Your task to perform on an android device: turn on data saver in the chrome app Image 0: 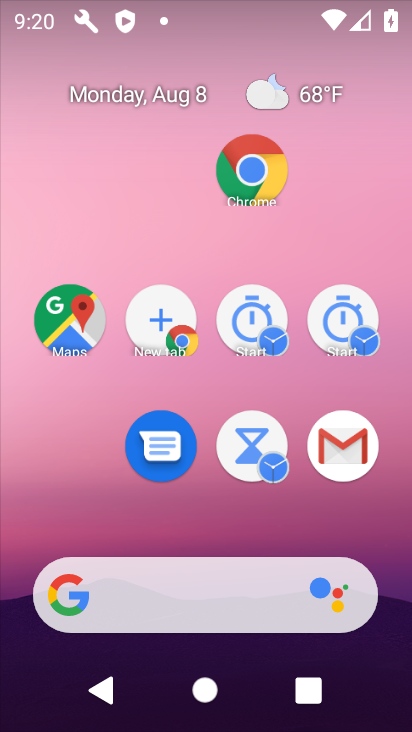
Step 0: drag from (259, 588) to (204, 234)
Your task to perform on an android device: turn on data saver in the chrome app Image 1: 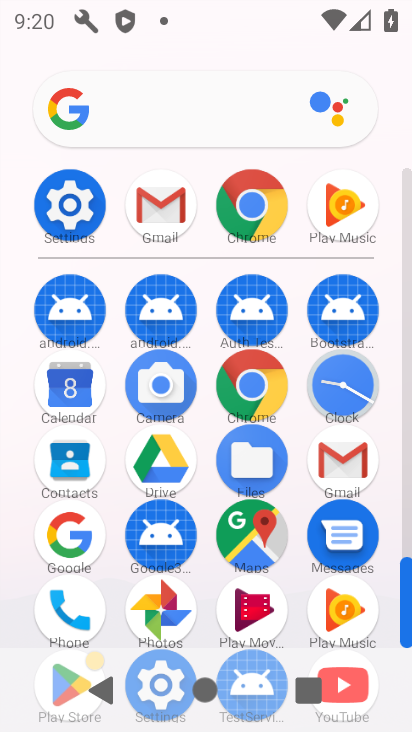
Step 1: click (242, 199)
Your task to perform on an android device: turn on data saver in the chrome app Image 2: 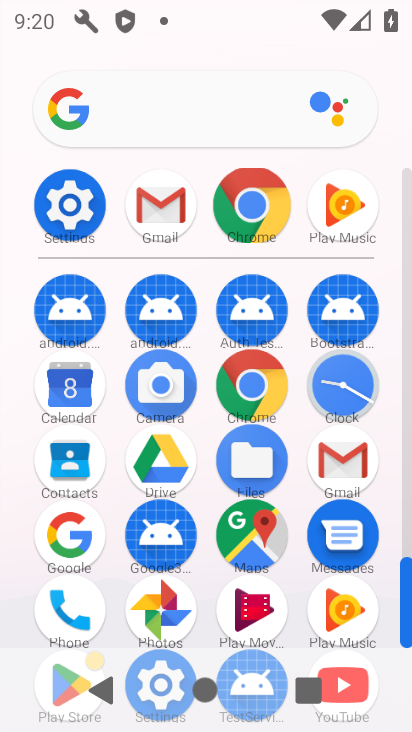
Step 2: click (244, 201)
Your task to perform on an android device: turn on data saver in the chrome app Image 3: 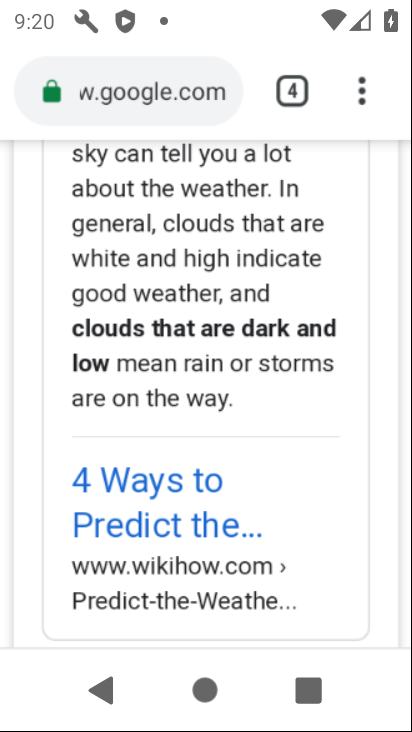
Step 3: click (248, 213)
Your task to perform on an android device: turn on data saver in the chrome app Image 4: 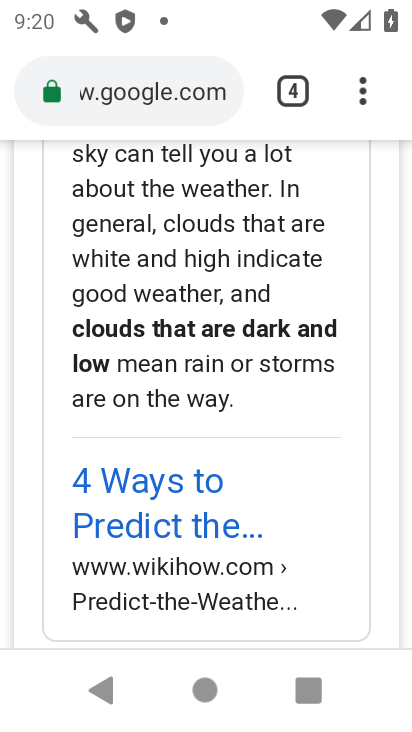
Step 4: drag from (253, 582) to (212, 160)
Your task to perform on an android device: turn on data saver in the chrome app Image 5: 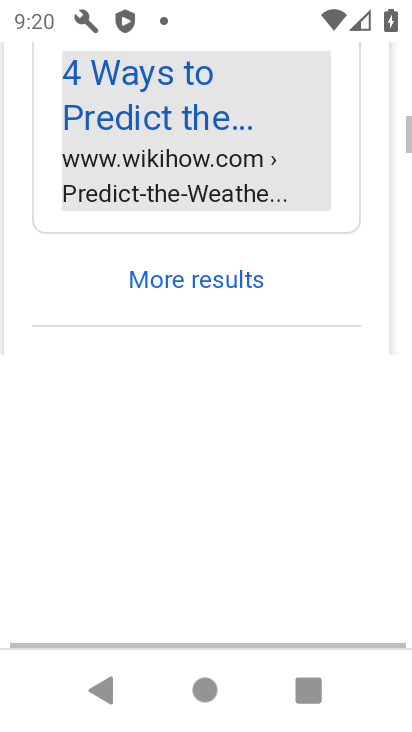
Step 5: click (220, 65)
Your task to perform on an android device: turn on data saver in the chrome app Image 6: 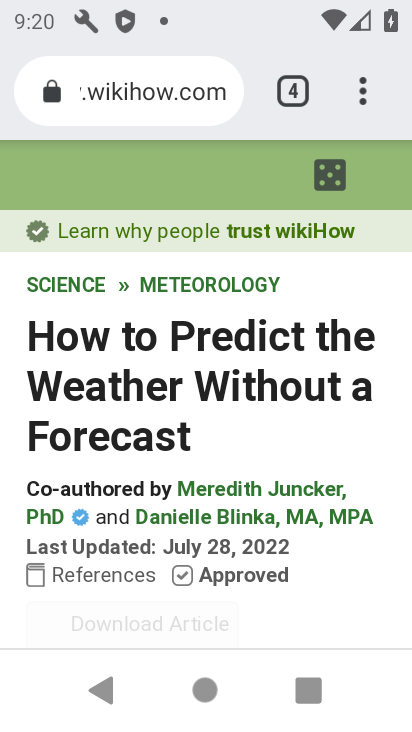
Step 6: drag from (362, 97) to (324, 421)
Your task to perform on an android device: turn on data saver in the chrome app Image 7: 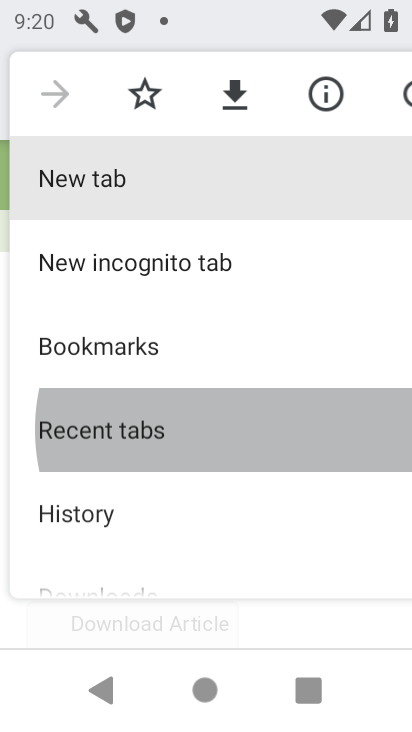
Step 7: click (359, 87)
Your task to perform on an android device: turn on data saver in the chrome app Image 8: 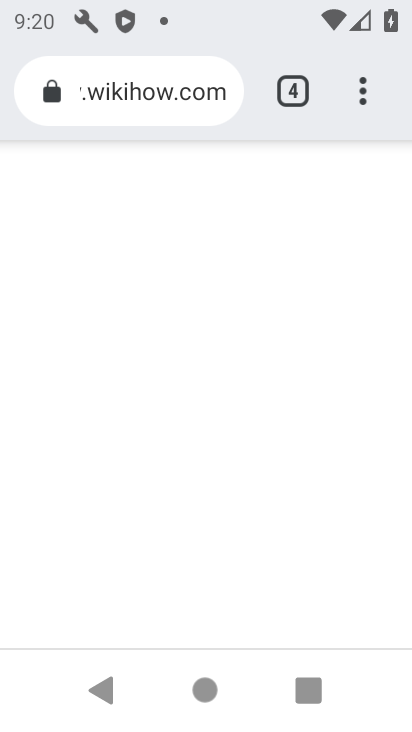
Step 8: drag from (366, 92) to (120, 402)
Your task to perform on an android device: turn on data saver in the chrome app Image 9: 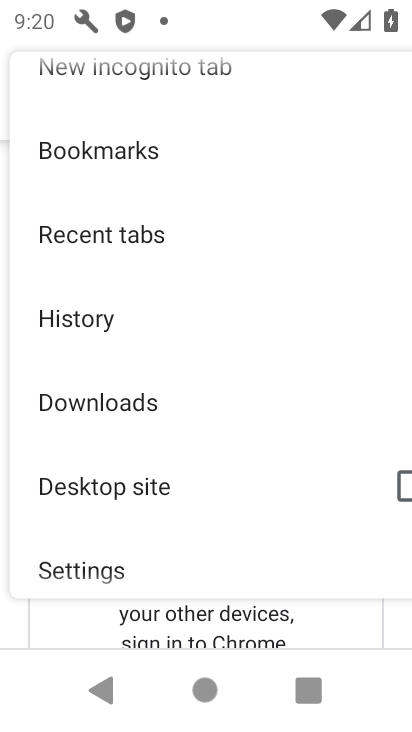
Step 9: drag from (127, 481) to (102, 221)
Your task to perform on an android device: turn on data saver in the chrome app Image 10: 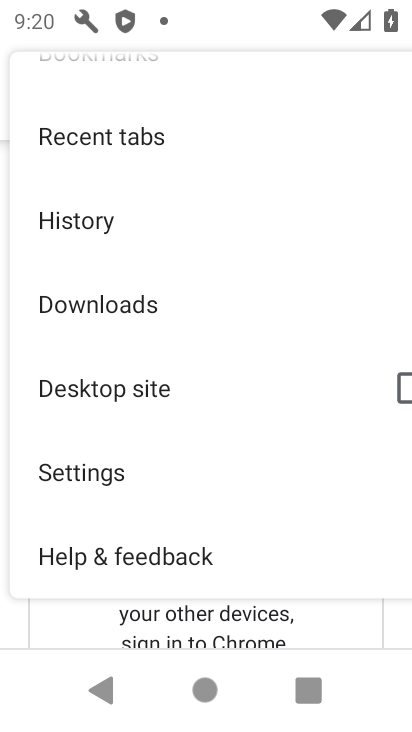
Step 10: drag from (113, 406) to (117, 173)
Your task to perform on an android device: turn on data saver in the chrome app Image 11: 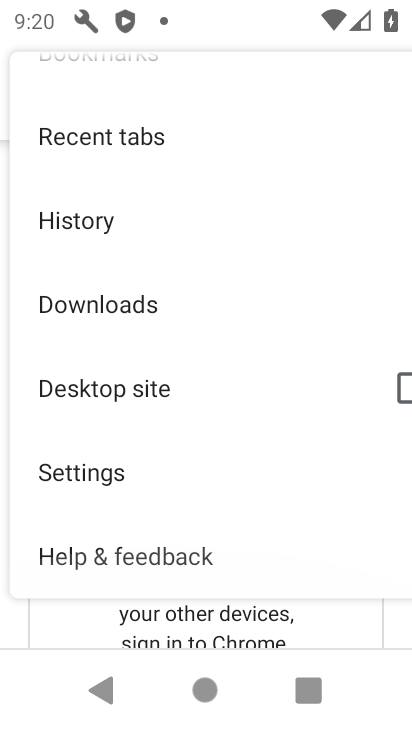
Step 11: drag from (138, 484) to (139, 198)
Your task to perform on an android device: turn on data saver in the chrome app Image 12: 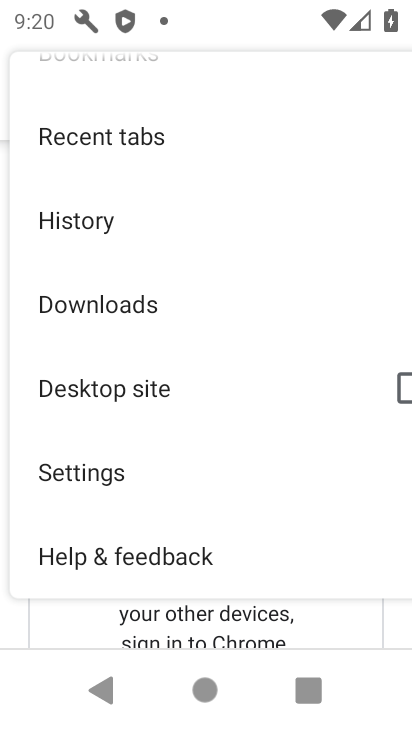
Step 12: drag from (96, 493) to (76, 400)
Your task to perform on an android device: turn on data saver in the chrome app Image 13: 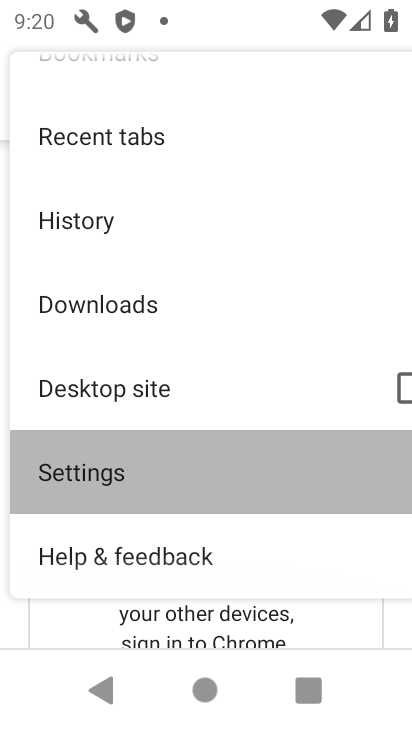
Step 13: drag from (145, 500) to (133, 359)
Your task to perform on an android device: turn on data saver in the chrome app Image 14: 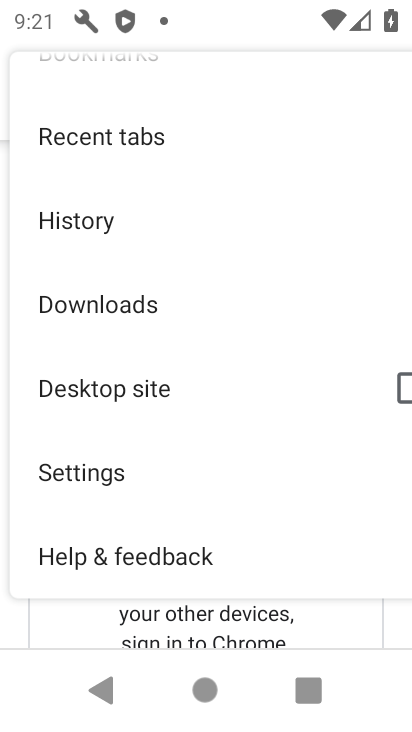
Step 14: drag from (179, 481) to (215, 251)
Your task to perform on an android device: turn on data saver in the chrome app Image 15: 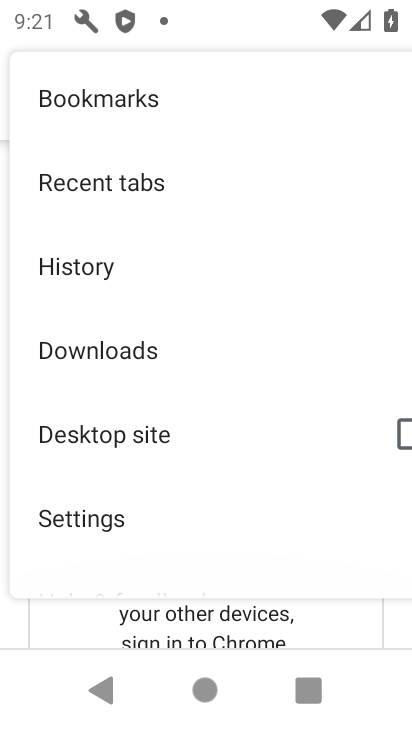
Step 15: drag from (215, 432) to (202, 202)
Your task to perform on an android device: turn on data saver in the chrome app Image 16: 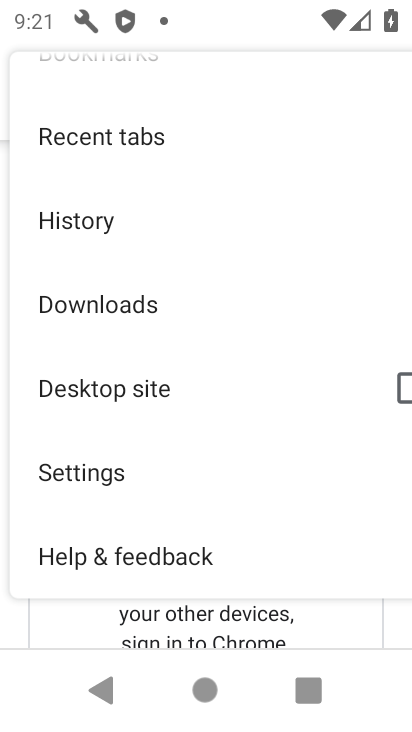
Step 16: drag from (196, 435) to (196, 170)
Your task to perform on an android device: turn on data saver in the chrome app Image 17: 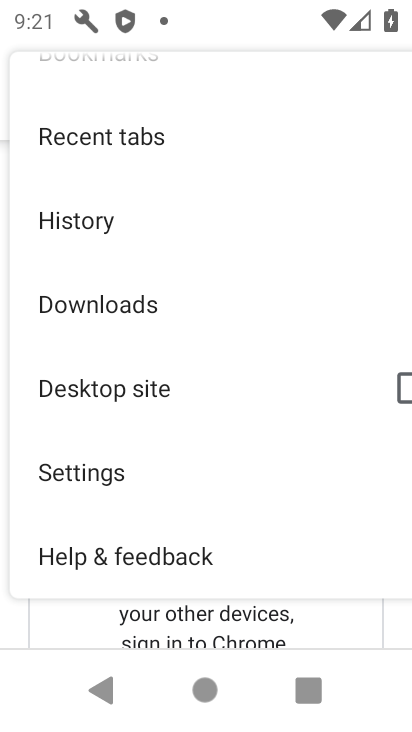
Step 17: drag from (140, 381) to (231, 176)
Your task to perform on an android device: turn on data saver in the chrome app Image 18: 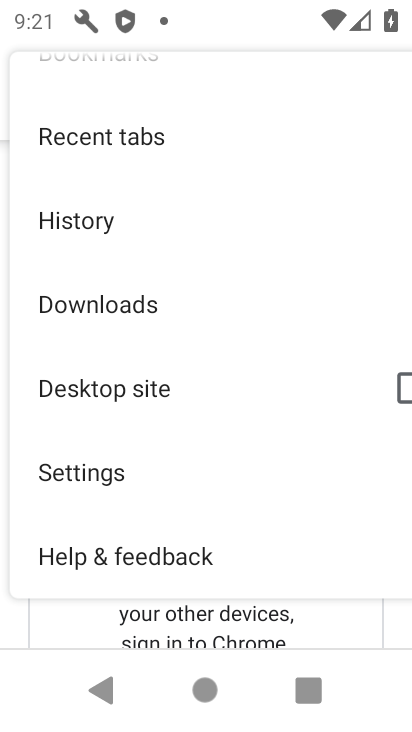
Step 18: drag from (102, 503) to (105, 209)
Your task to perform on an android device: turn on data saver in the chrome app Image 19: 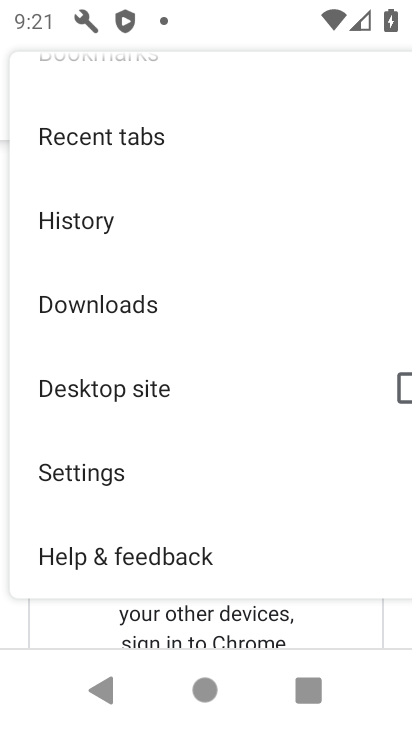
Step 19: drag from (125, 513) to (132, 321)
Your task to perform on an android device: turn on data saver in the chrome app Image 20: 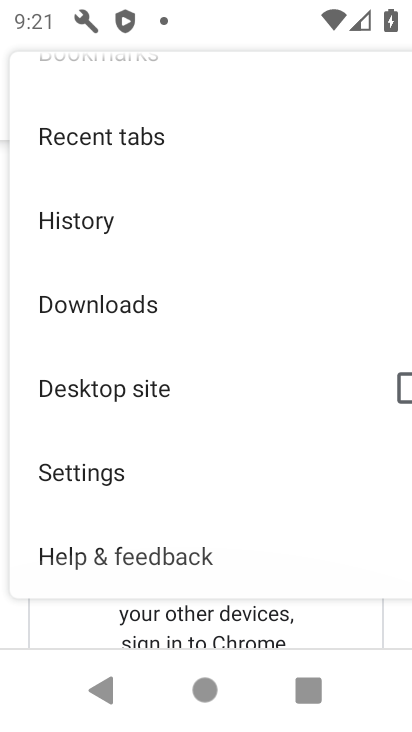
Step 20: drag from (148, 411) to (154, 213)
Your task to perform on an android device: turn on data saver in the chrome app Image 21: 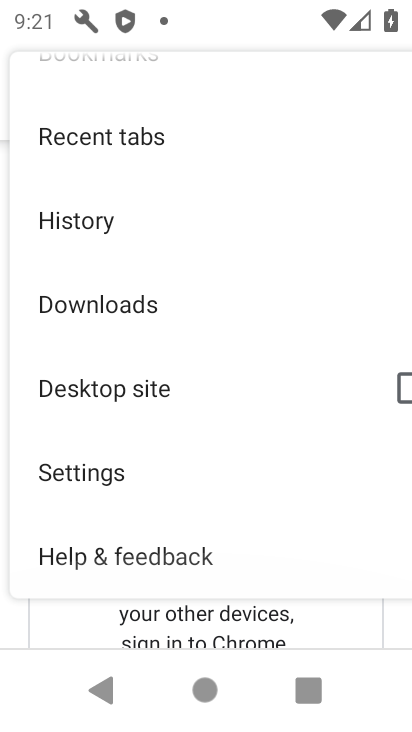
Step 21: drag from (121, 372) to (131, 191)
Your task to perform on an android device: turn on data saver in the chrome app Image 22: 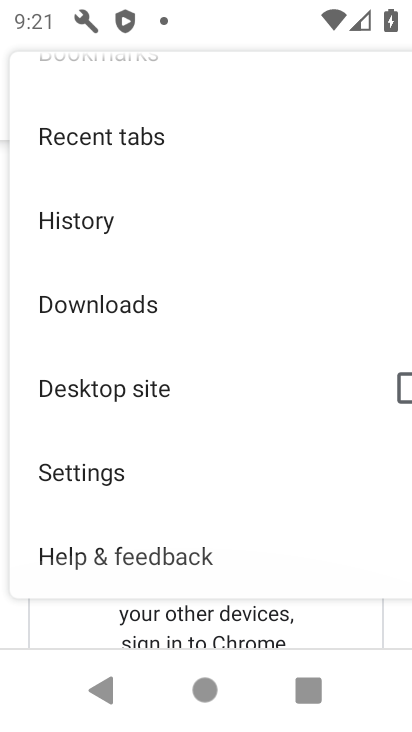
Step 22: drag from (164, 395) to (170, 103)
Your task to perform on an android device: turn on data saver in the chrome app Image 23: 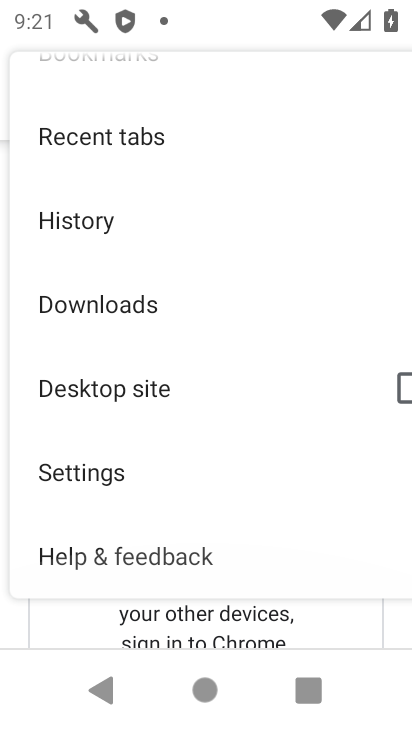
Step 23: drag from (97, 470) to (99, 202)
Your task to perform on an android device: turn on data saver in the chrome app Image 24: 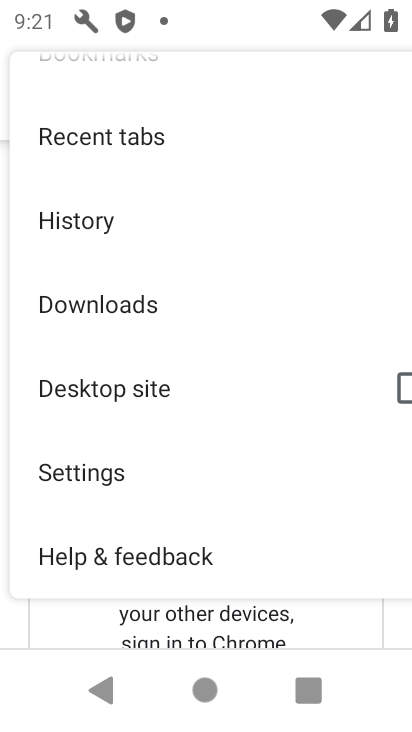
Step 24: click (85, 476)
Your task to perform on an android device: turn on data saver in the chrome app Image 25: 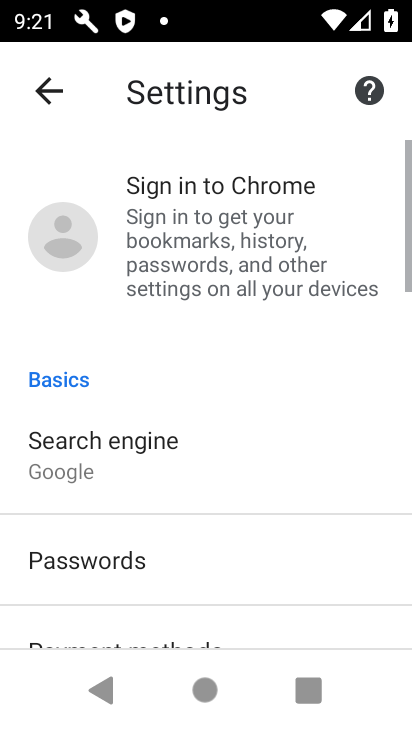
Step 25: drag from (170, 425) to (153, 197)
Your task to perform on an android device: turn on data saver in the chrome app Image 26: 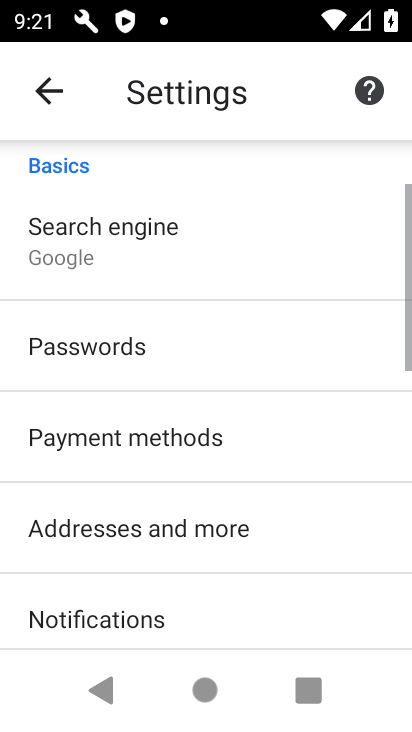
Step 26: drag from (193, 477) to (191, 172)
Your task to perform on an android device: turn on data saver in the chrome app Image 27: 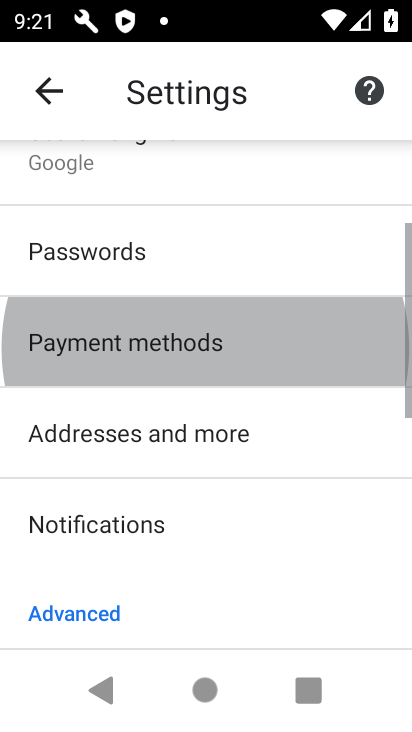
Step 27: drag from (183, 370) to (179, 193)
Your task to perform on an android device: turn on data saver in the chrome app Image 28: 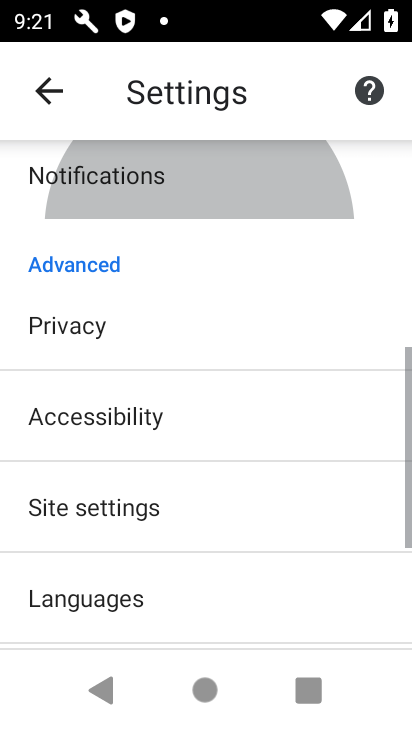
Step 28: drag from (167, 484) to (167, 225)
Your task to perform on an android device: turn on data saver in the chrome app Image 29: 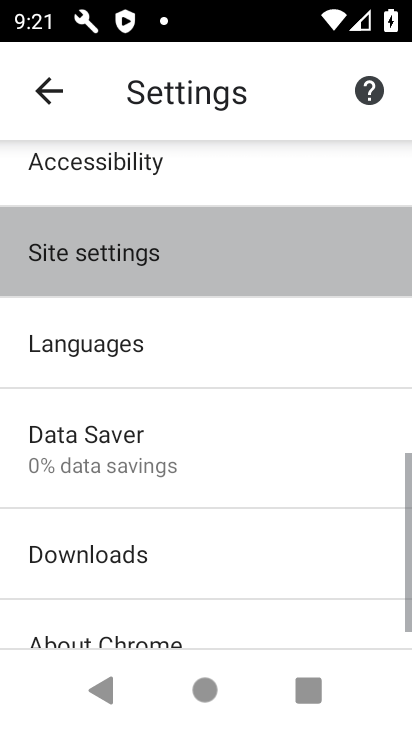
Step 29: drag from (198, 426) to (194, 222)
Your task to perform on an android device: turn on data saver in the chrome app Image 30: 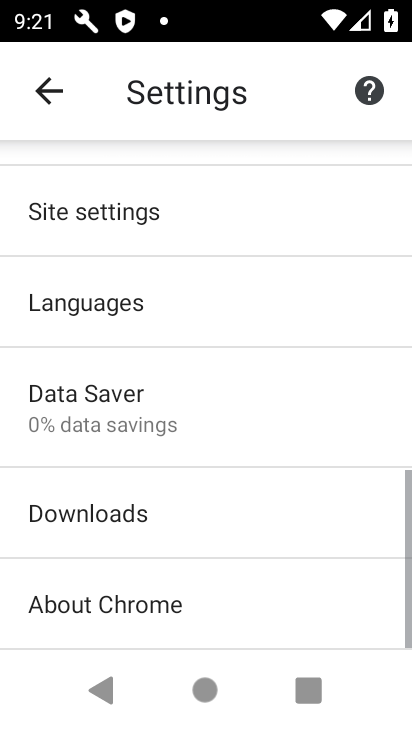
Step 30: click (95, 415)
Your task to perform on an android device: turn on data saver in the chrome app Image 31: 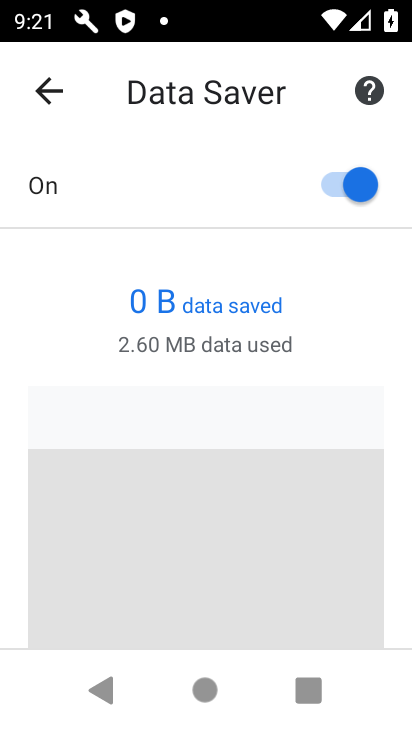
Step 31: task complete